Your task to perform on an android device: toggle translation in the chrome app Image 0: 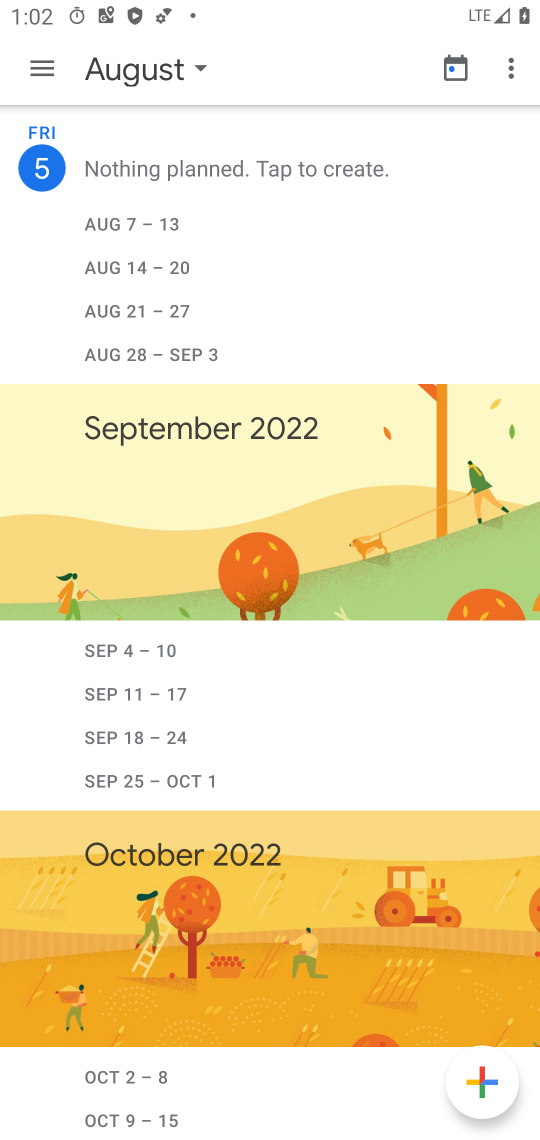
Step 0: press home button
Your task to perform on an android device: toggle translation in the chrome app Image 1: 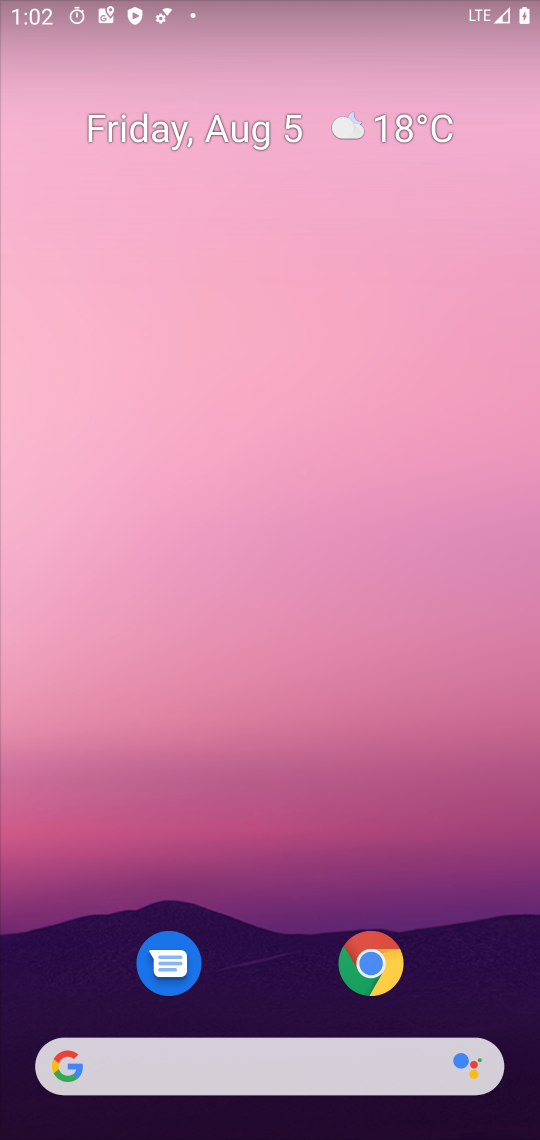
Step 1: drag from (272, 721) to (259, 113)
Your task to perform on an android device: toggle translation in the chrome app Image 2: 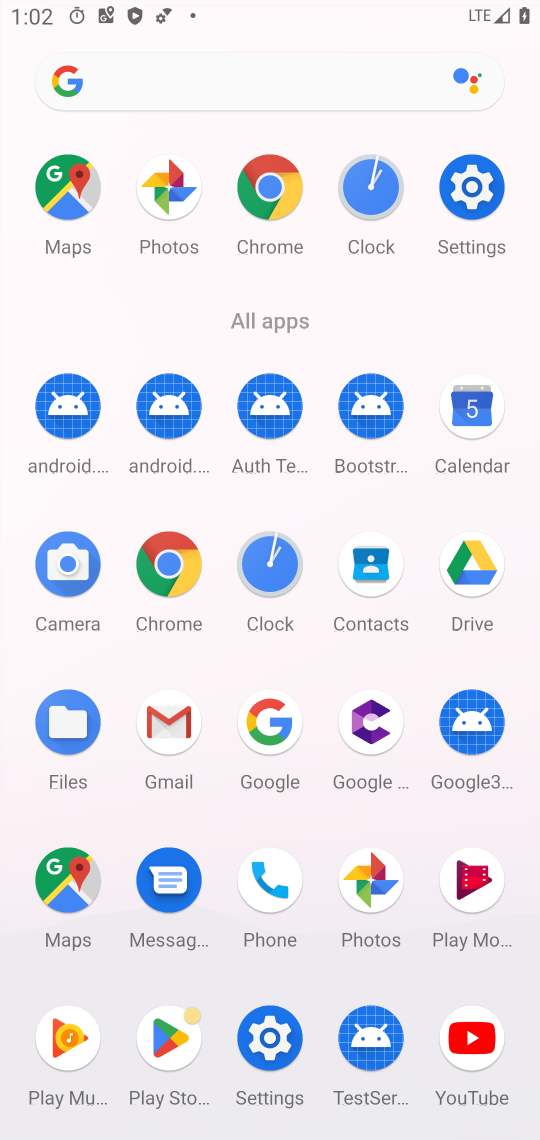
Step 2: click (272, 185)
Your task to perform on an android device: toggle translation in the chrome app Image 3: 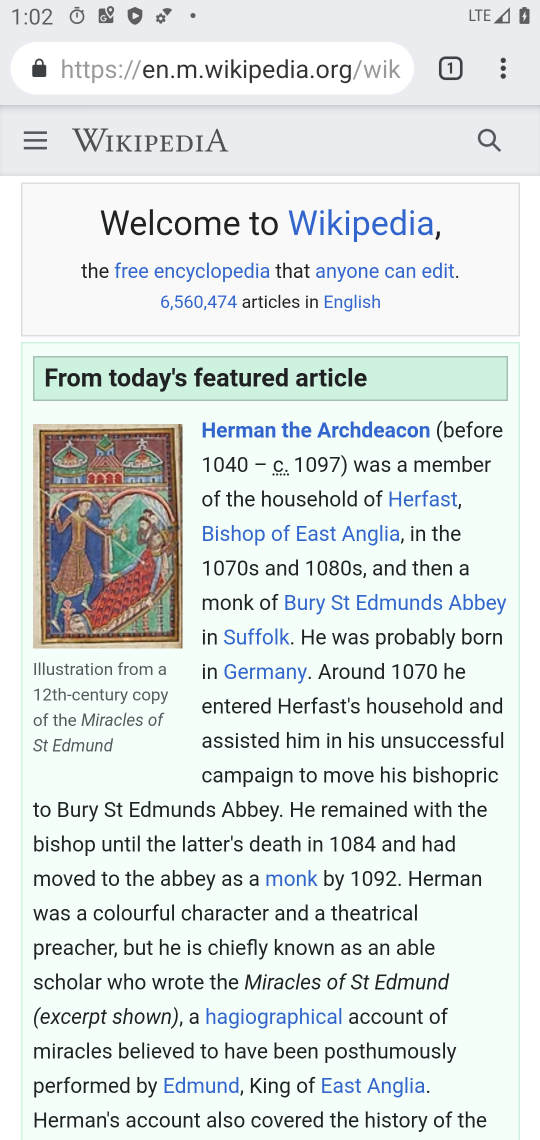
Step 3: drag from (503, 71) to (308, 784)
Your task to perform on an android device: toggle translation in the chrome app Image 4: 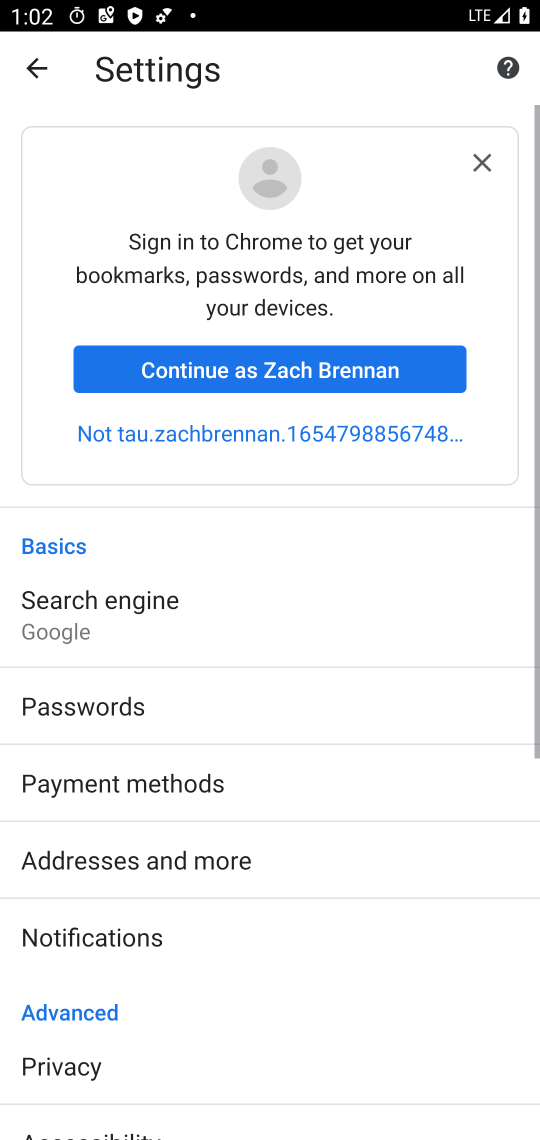
Step 4: drag from (220, 972) to (385, 94)
Your task to perform on an android device: toggle translation in the chrome app Image 5: 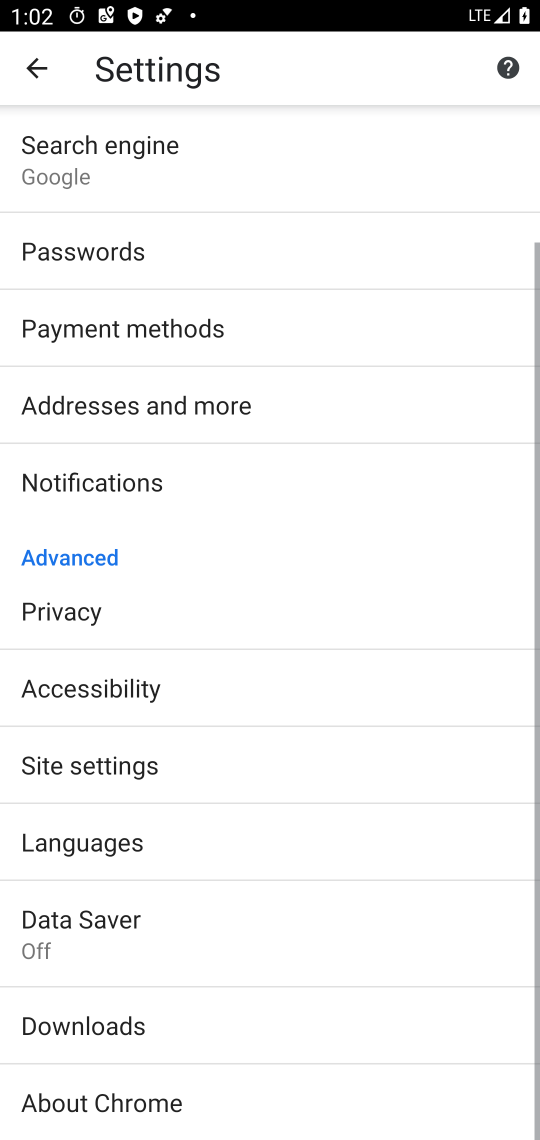
Step 5: click (145, 853)
Your task to perform on an android device: toggle translation in the chrome app Image 6: 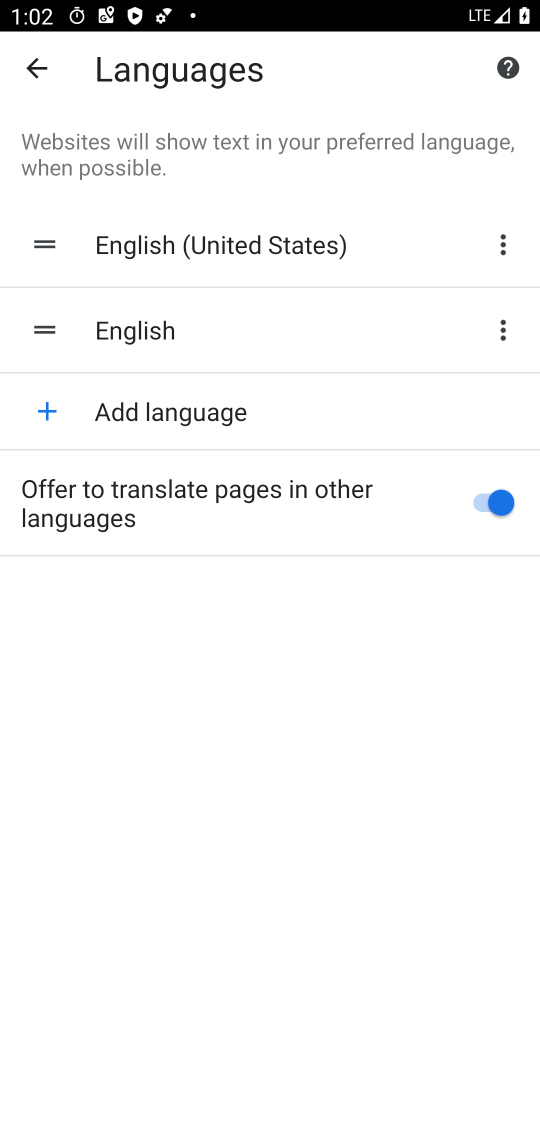
Step 6: click (494, 517)
Your task to perform on an android device: toggle translation in the chrome app Image 7: 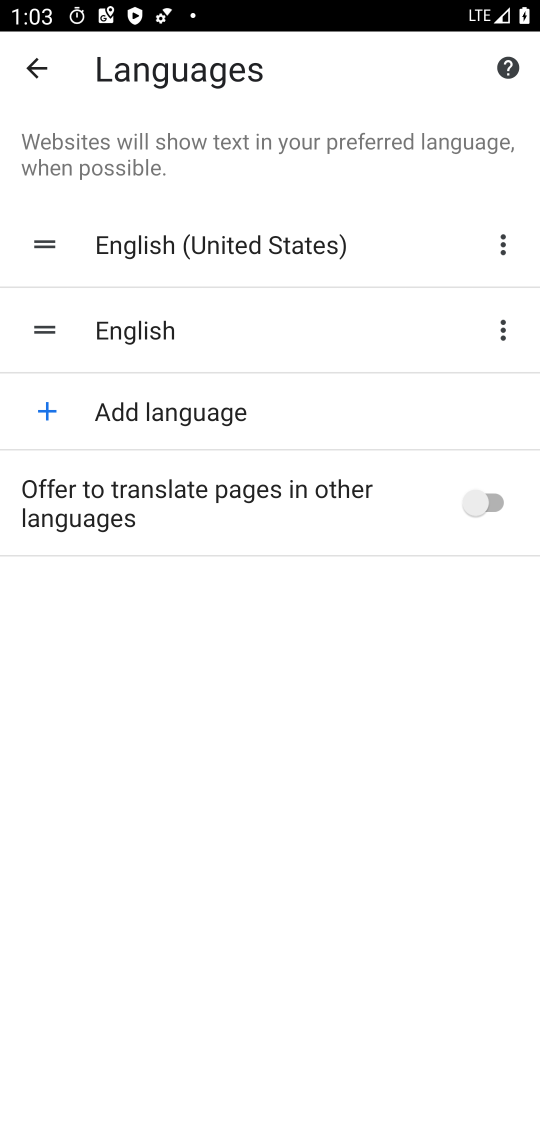
Step 7: task complete